Your task to perform on an android device: turn off priority inbox in the gmail app Image 0: 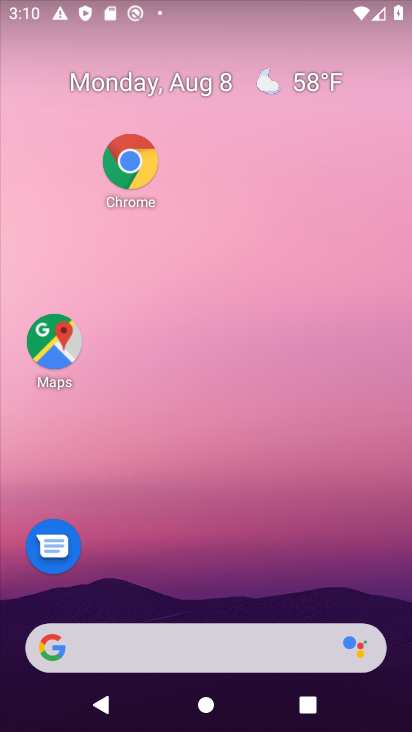
Step 0: drag from (120, 596) to (214, 188)
Your task to perform on an android device: turn off priority inbox in the gmail app Image 1: 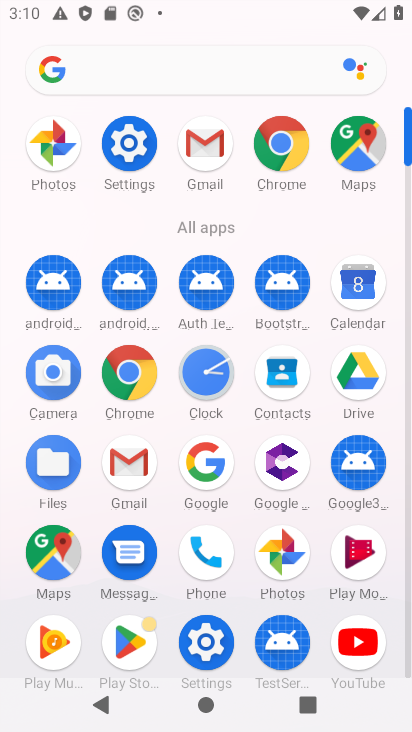
Step 1: click (209, 158)
Your task to perform on an android device: turn off priority inbox in the gmail app Image 2: 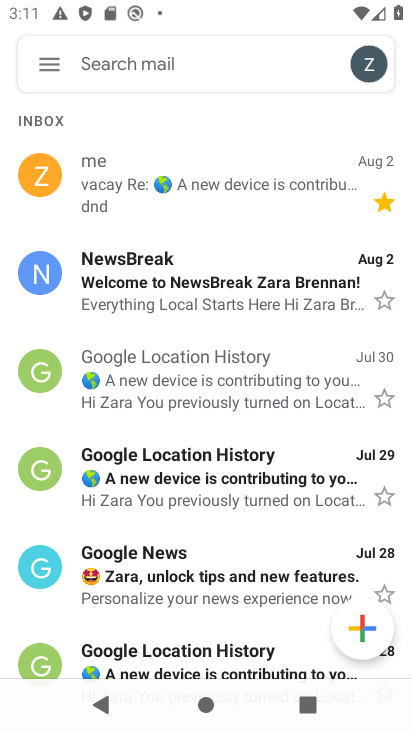
Step 2: click (33, 44)
Your task to perform on an android device: turn off priority inbox in the gmail app Image 3: 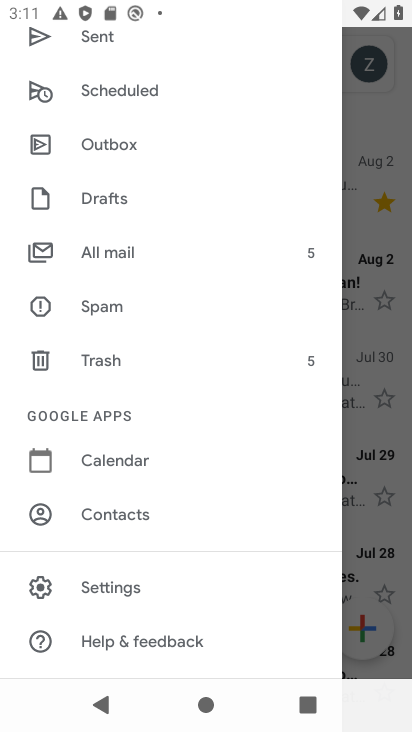
Step 3: click (149, 592)
Your task to perform on an android device: turn off priority inbox in the gmail app Image 4: 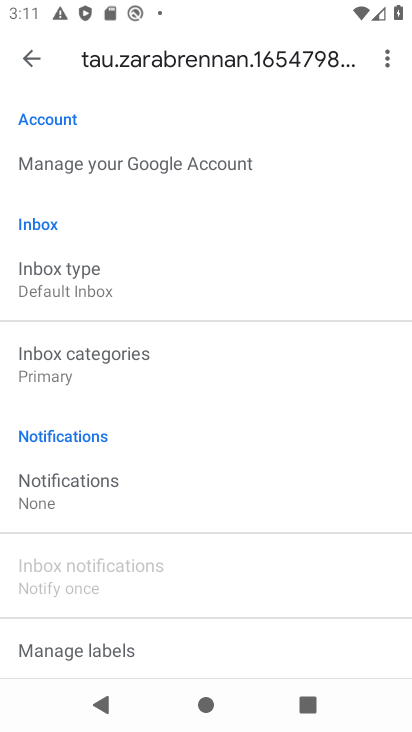
Step 4: drag from (149, 592) to (110, 239)
Your task to perform on an android device: turn off priority inbox in the gmail app Image 5: 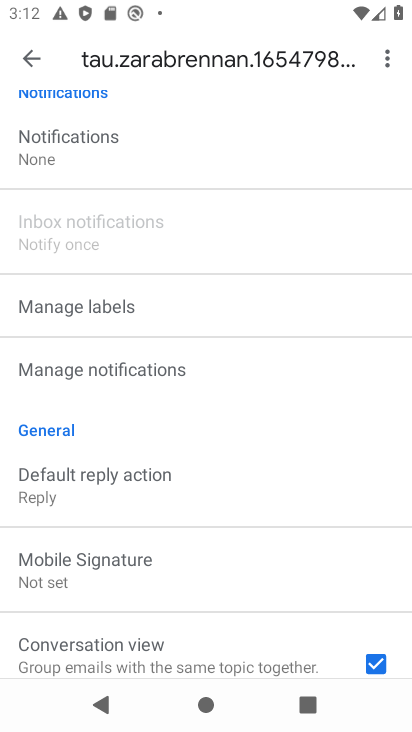
Step 5: drag from (221, 627) to (200, 207)
Your task to perform on an android device: turn off priority inbox in the gmail app Image 6: 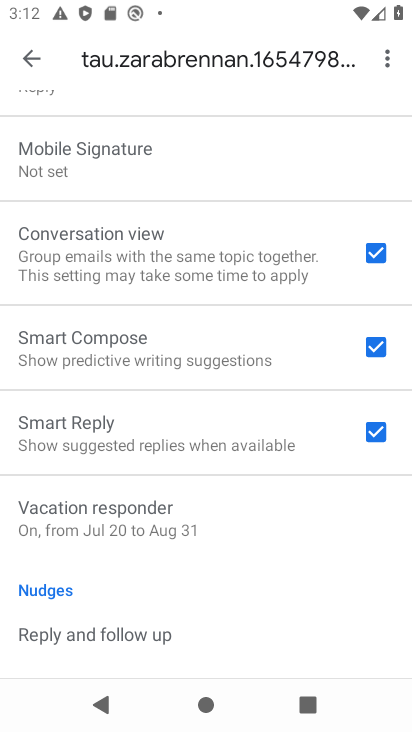
Step 6: drag from (193, 281) to (187, 636)
Your task to perform on an android device: turn off priority inbox in the gmail app Image 7: 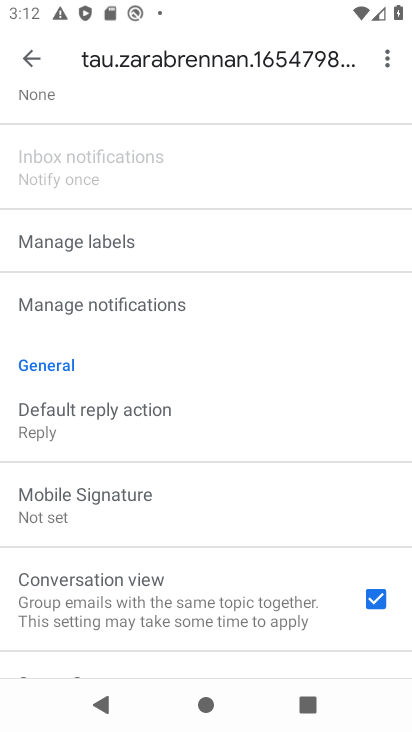
Step 7: drag from (160, 226) to (179, 491)
Your task to perform on an android device: turn off priority inbox in the gmail app Image 8: 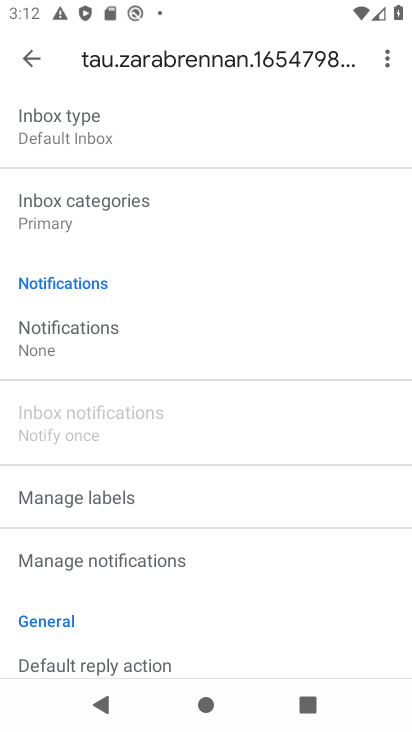
Step 8: drag from (185, 148) to (201, 634)
Your task to perform on an android device: turn off priority inbox in the gmail app Image 9: 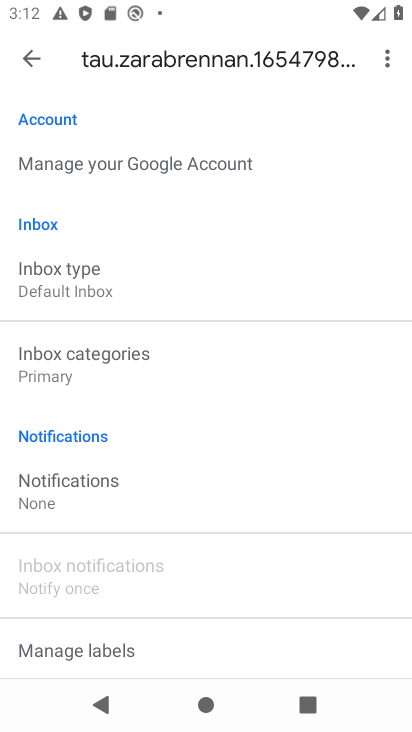
Step 9: click (117, 300)
Your task to perform on an android device: turn off priority inbox in the gmail app Image 10: 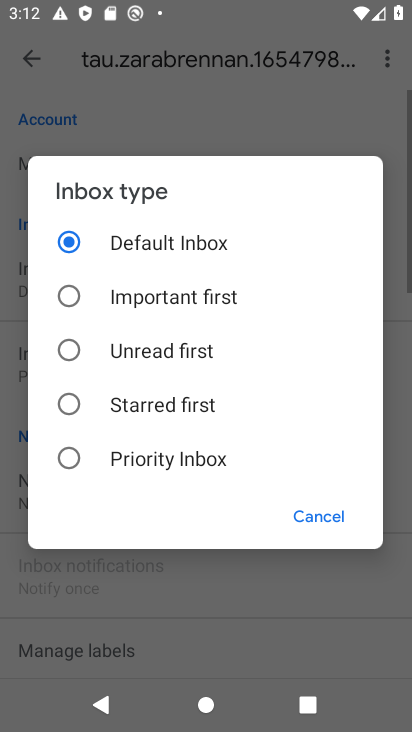
Step 10: task complete